Your task to perform on an android device: Do I have any events tomorrow? Image 0: 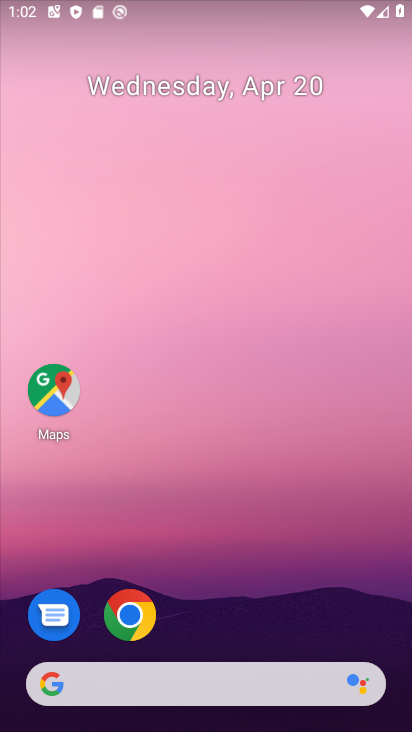
Step 0: drag from (391, 385) to (393, 168)
Your task to perform on an android device: Do I have any events tomorrow? Image 1: 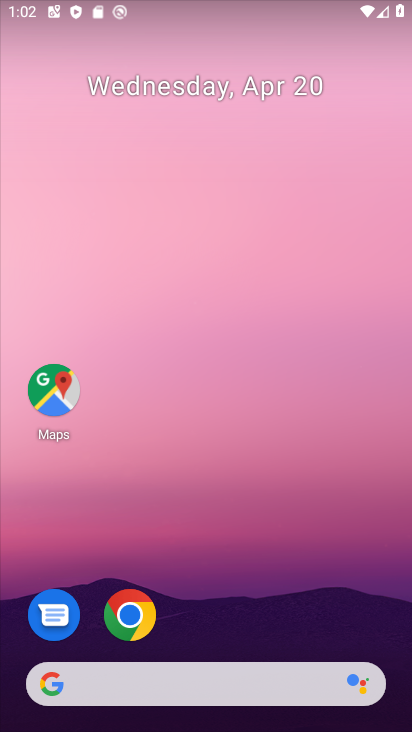
Step 1: drag from (391, 335) to (384, 259)
Your task to perform on an android device: Do I have any events tomorrow? Image 2: 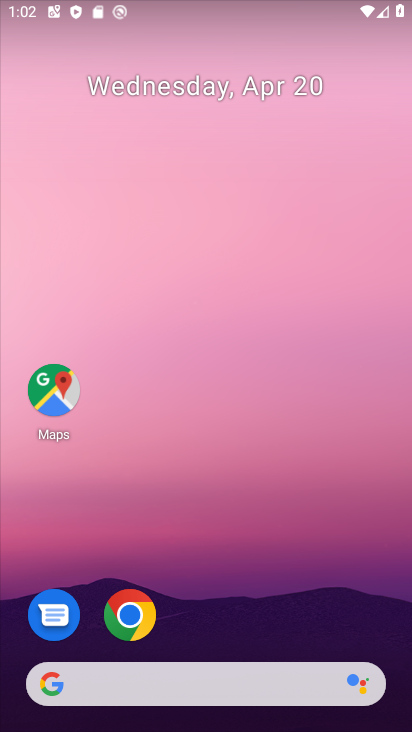
Step 2: drag from (385, 635) to (364, 70)
Your task to perform on an android device: Do I have any events tomorrow? Image 3: 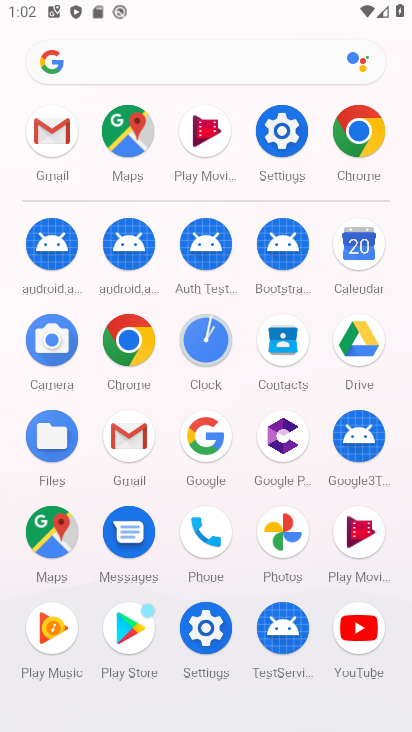
Step 3: click (369, 249)
Your task to perform on an android device: Do I have any events tomorrow? Image 4: 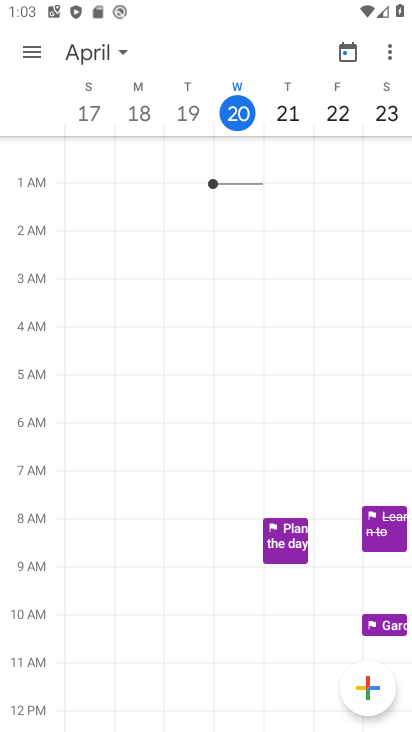
Step 4: click (282, 109)
Your task to perform on an android device: Do I have any events tomorrow? Image 5: 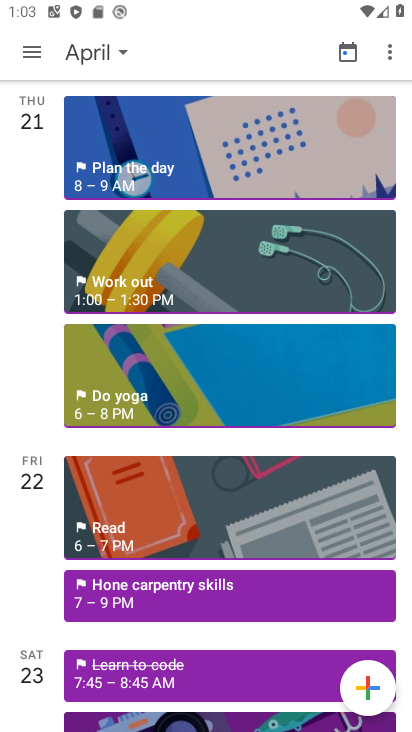
Step 5: click (127, 52)
Your task to perform on an android device: Do I have any events tomorrow? Image 6: 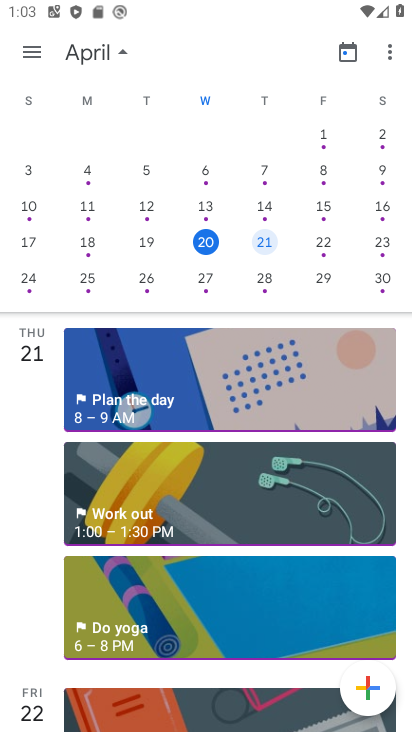
Step 6: click (264, 240)
Your task to perform on an android device: Do I have any events tomorrow? Image 7: 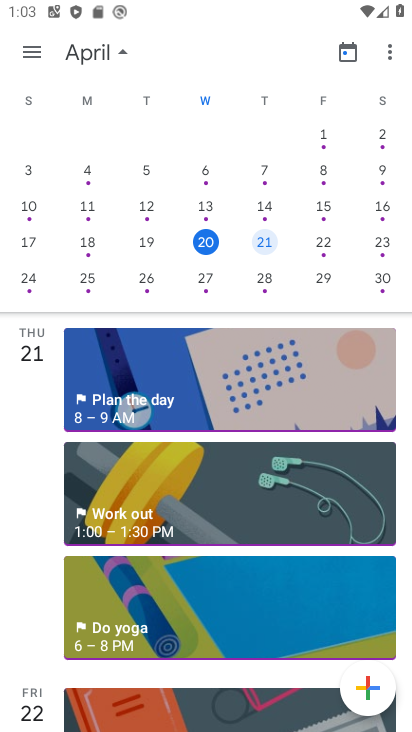
Step 7: click (264, 240)
Your task to perform on an android device: Do I have any events tomorrow? Image 8: 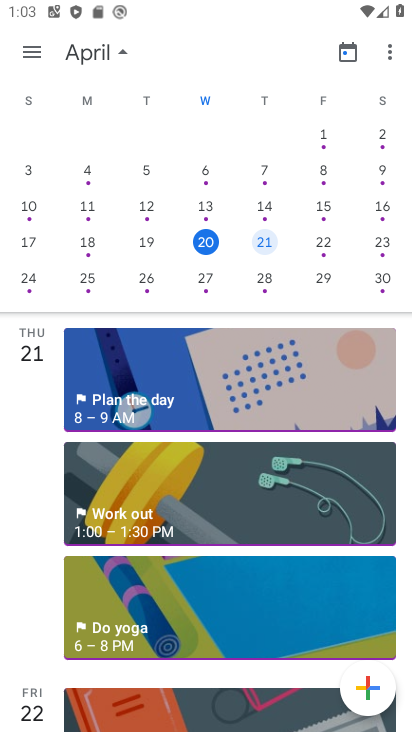
Step 8: task complete